Your task to perform on an android device: turn notification dots off Image 0: 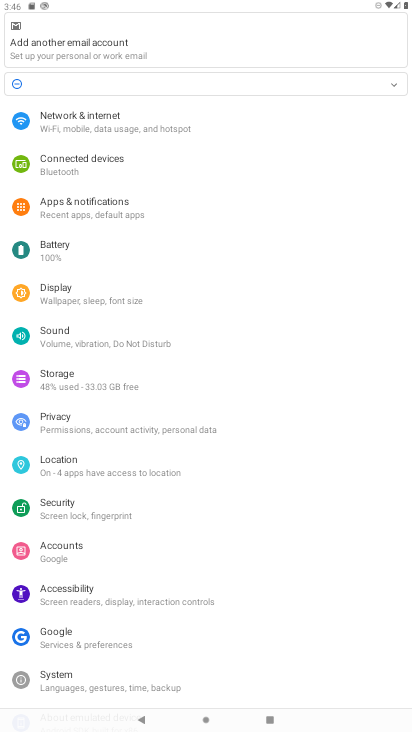
Step 0: click (91, 207)
Your task to perform on an android device: turn notification dots off Image 1: 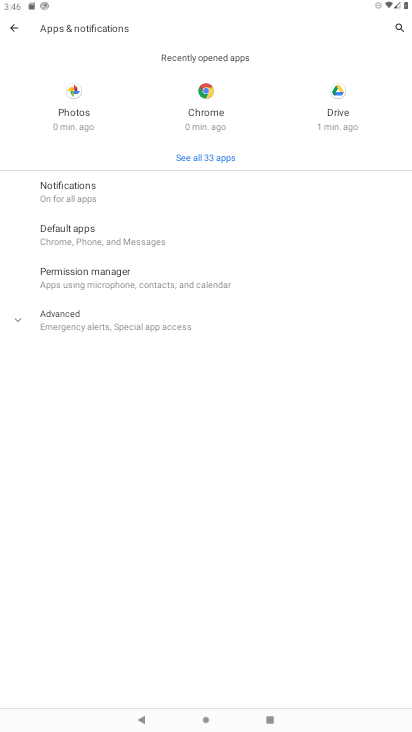
Step 1: click (63, 183)
Your task to perform on an android device: turn notification dots off Image 2: 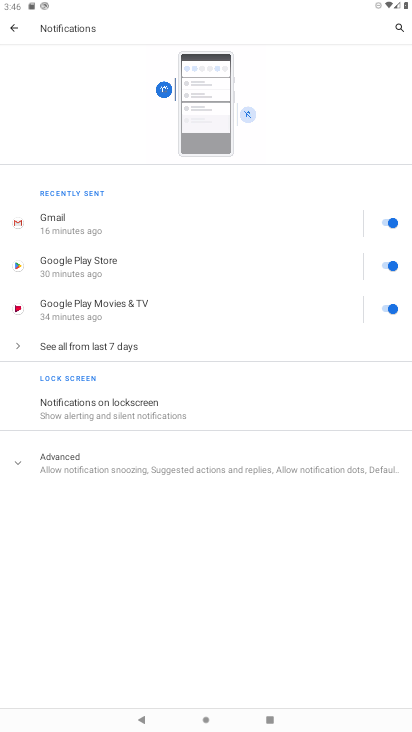
Step 2: click (94, 461)
Your task to perform on an android device: turn notification dots off Image 3: 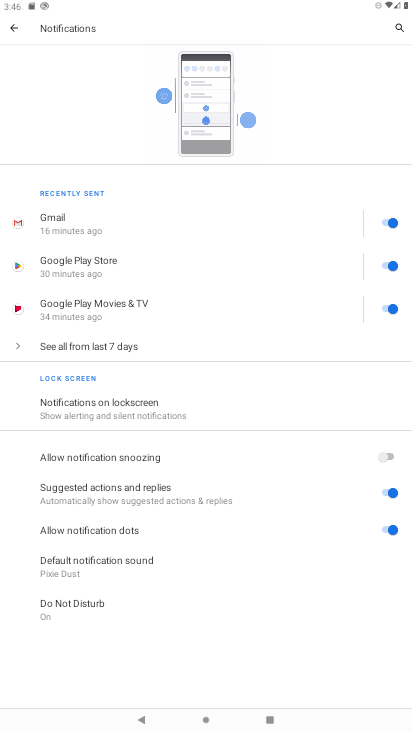
Step 3: click (387, 529)
Your task to perform on an android device: turn notification dots off Image 4: 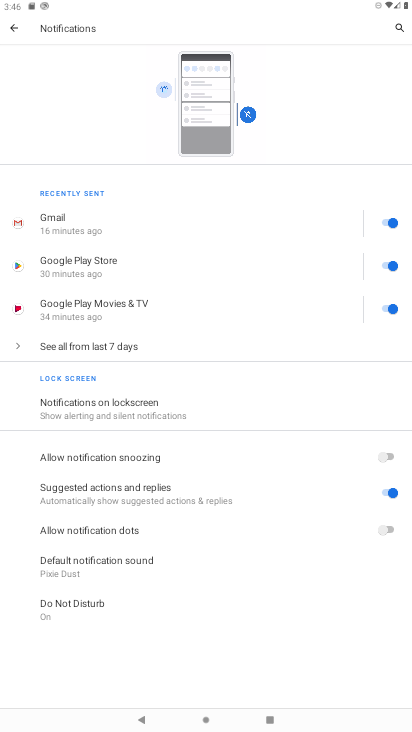
Step 4: task complete